Your task to perform on an android device: Do I have any events today? Image 0: 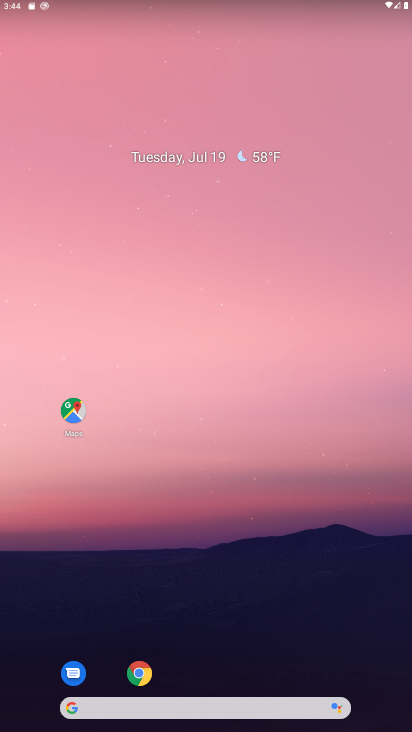
Step 0: drag from (251, 694) to (268, 58)
Your task to perform on an android device: Do I have any events today? Image 1: 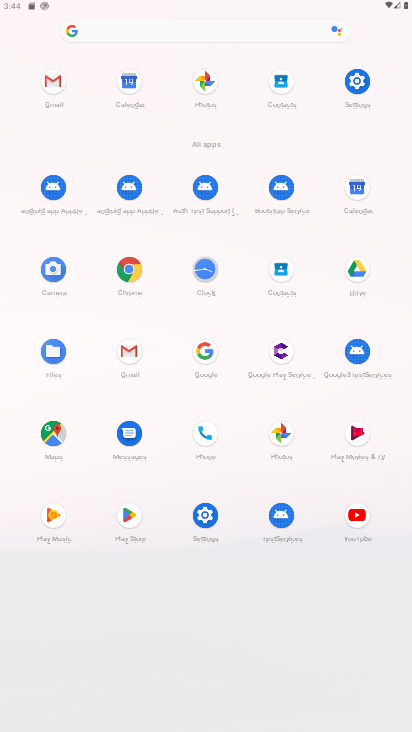
Step 1: click (130, 271)
Your task to perform on an android device: Do I have any events today? Image 2: 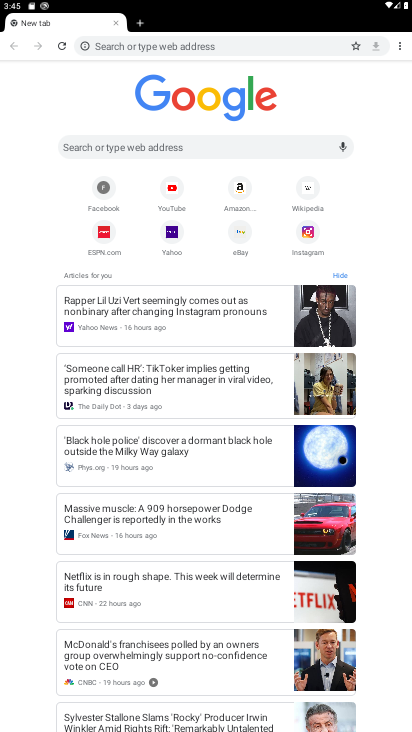
Step 2: press home button
Your task to perform on an android device: Do I have any events today? Image 3: 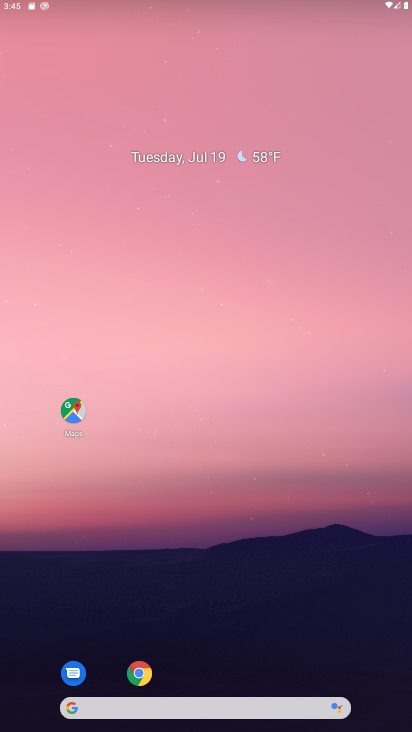
Step 3: drag from (251, 701) to (285, 58)
Your task to perform on an android device: Do I have any events today? Image 4: 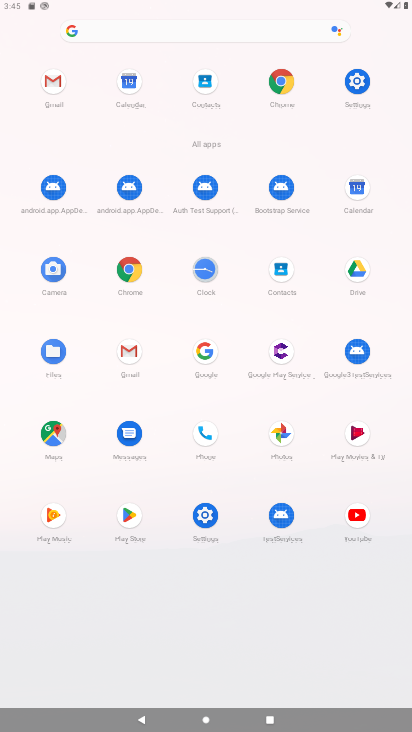
Step 4: click (364, 195)
Your task to perform on an android device: Do I have any events today? Image 5: 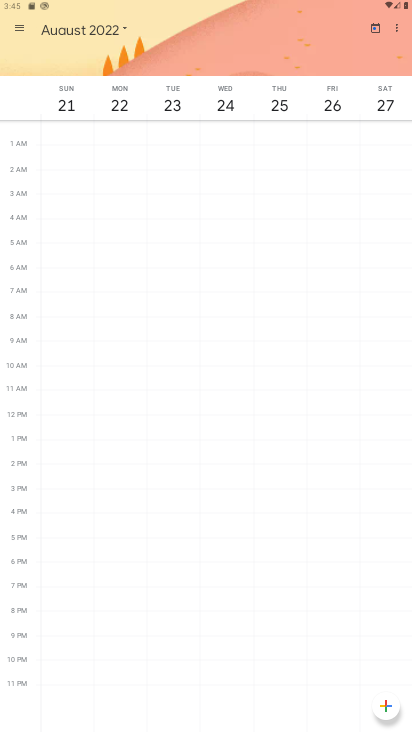
Step 5: click (120, 28)
Your task to perform on an android device: Do I have any events today? Image 6: 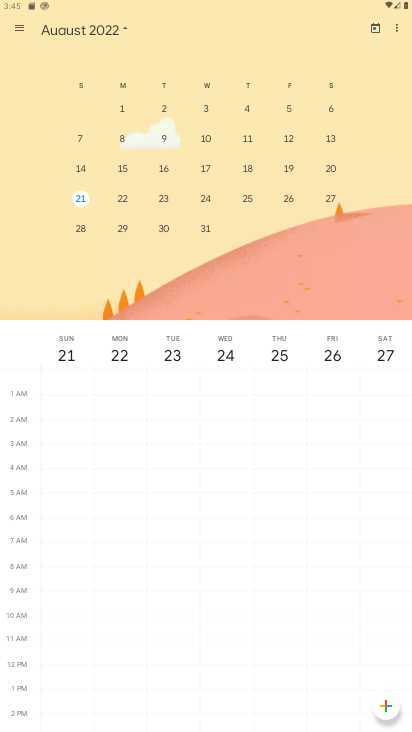
Step 6: task complete